Your task to perform on an android device: Go to calendar. Show me events next week Image 0: 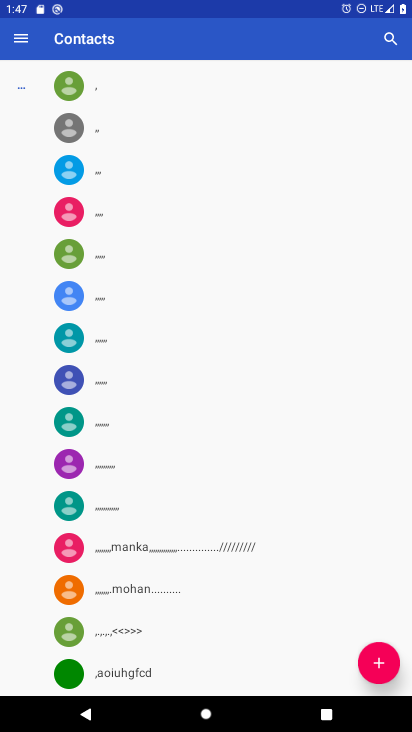
Step 0: press home button
Your task to perform on an android device: Go to calendar. Show me events next week Image 1: 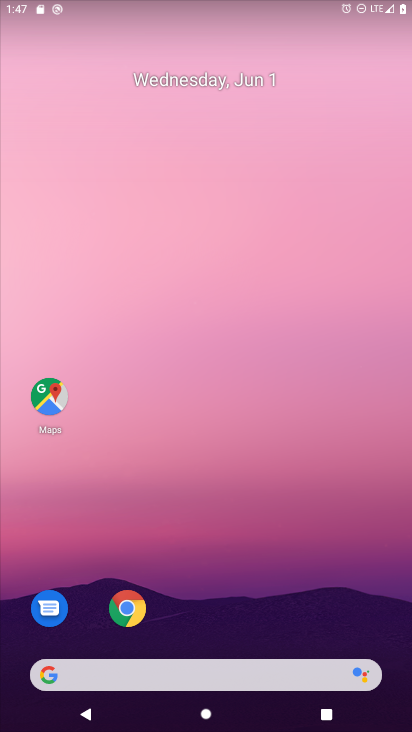
Step 1: drag from (185, 630) to (146, 217)
Your task to perform on an android device: Go to calendar. Show me events next week Image 2: 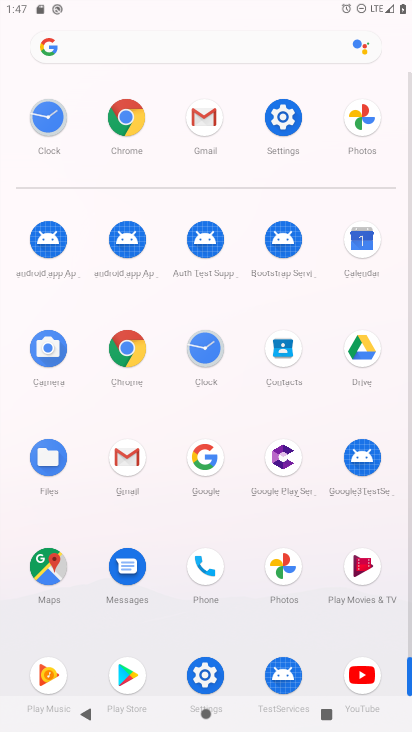
Step 2: click (359, 269)
Your task to perform on an android device: Go to calendar. Show me events next week Image 3: 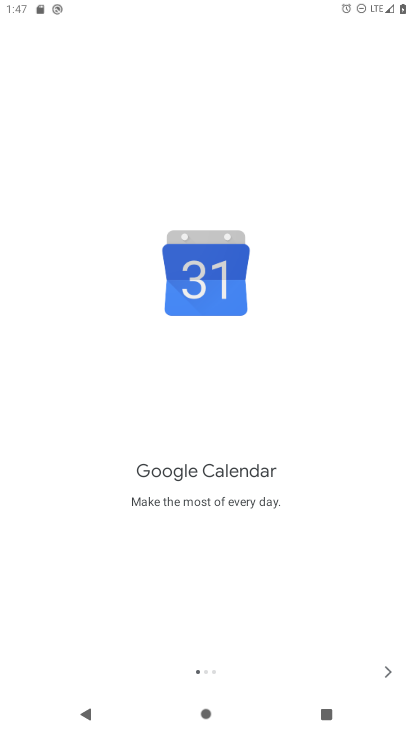
Step 3: click (359, 259)
Your task to perform on an android device: Go to calendar. Show me events next week Image 4: 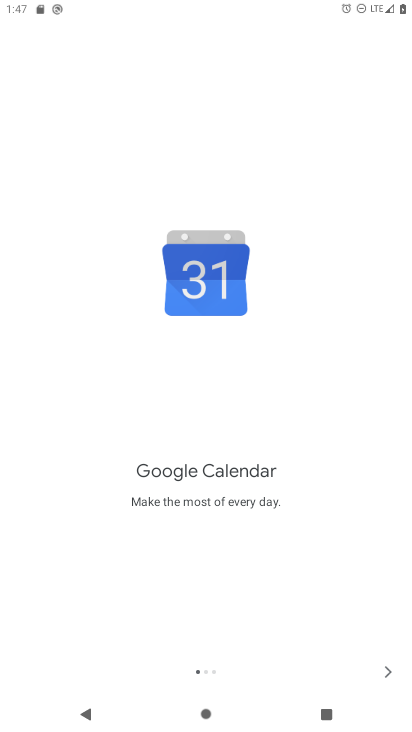
Step 4: click (377, 670)
Your task to perform on an android device: Go to calendar. Show me events next week Image 5: 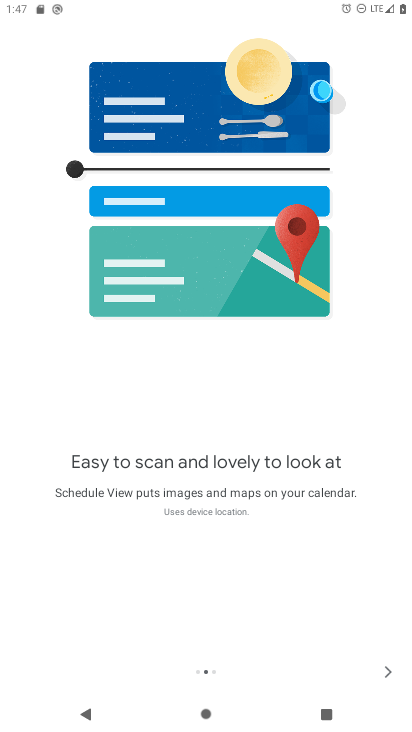
Step 5: click (377, 670)
Your task to perform on an android device: Go to calendar. Show me events next week Image 6: 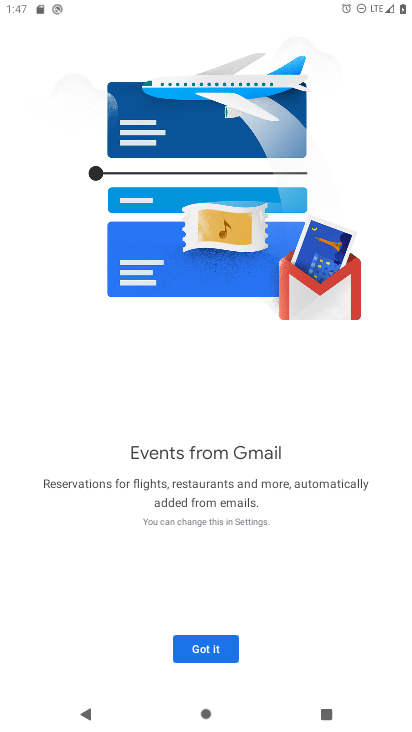
Step 6: click (209, 649)
Your task to perform on an android device: Go to calendar. Show me events next week Image 7: 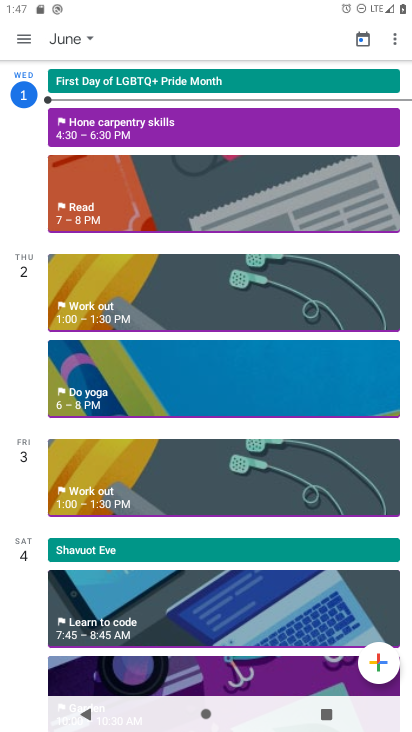
Step 7: click (38, 41)
Your task to perform on an android device: Go to calendar. Show me events next week Image 8: 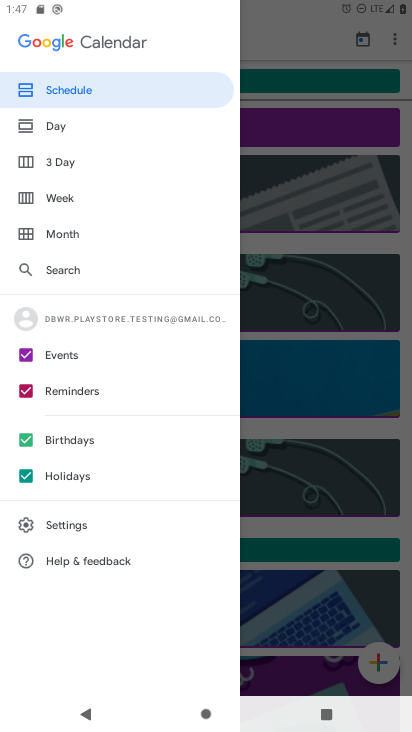
Step 8: click (56, 203)
Your task to perform on an android device: Go to calendar. Show me events next week Image 9: 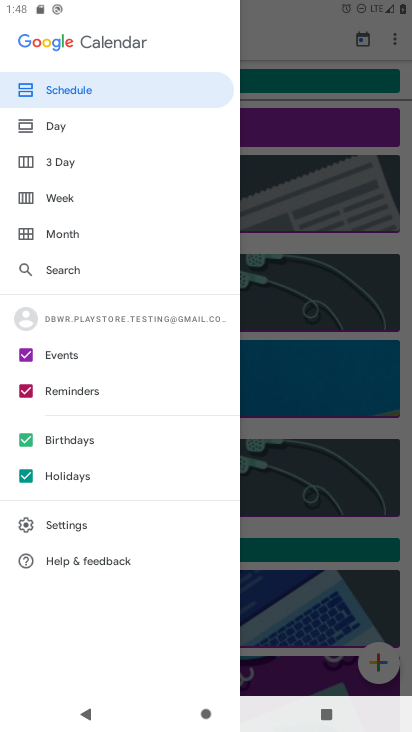
Step 9: click (65, 203)
Your task to perform on an android device: Go to calendar. Show me events next week Image 10: 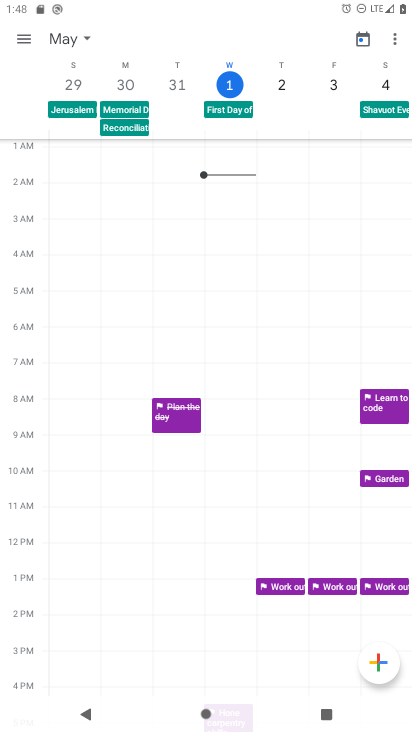
Step 10: click (66, 41)
Your task to perform on an android device: Go to calendar. Show me events next week Image 11: 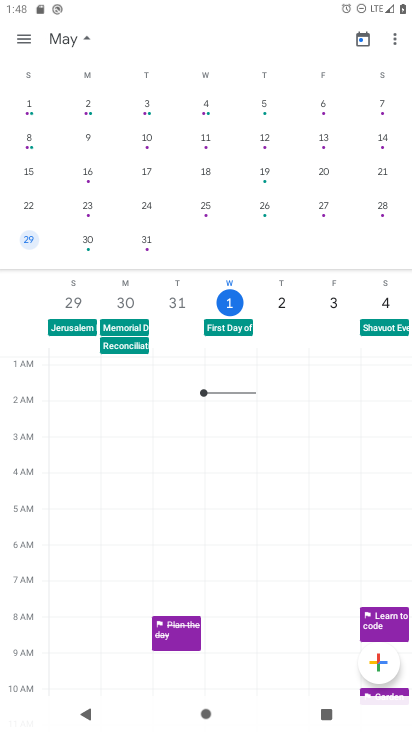
Step 11: drag from (359, 166) to (11, 152)
Your task to perform on an android device: Go to calendar. Show me events next week Image 12: 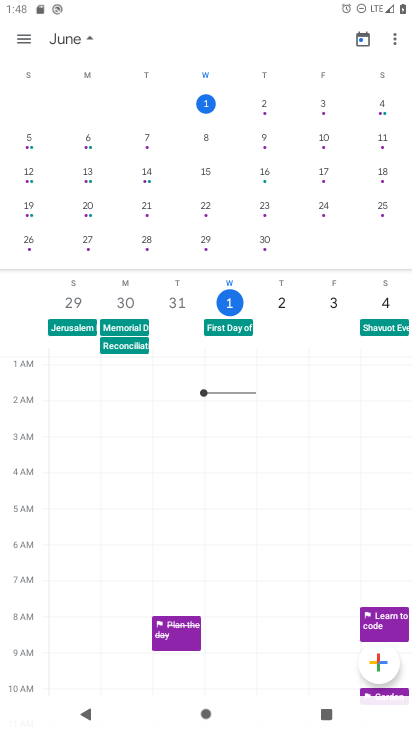
Step 12: click (25, 142)
Your task to perform on an android device: Go to calendar. Show me events next week Image 13: 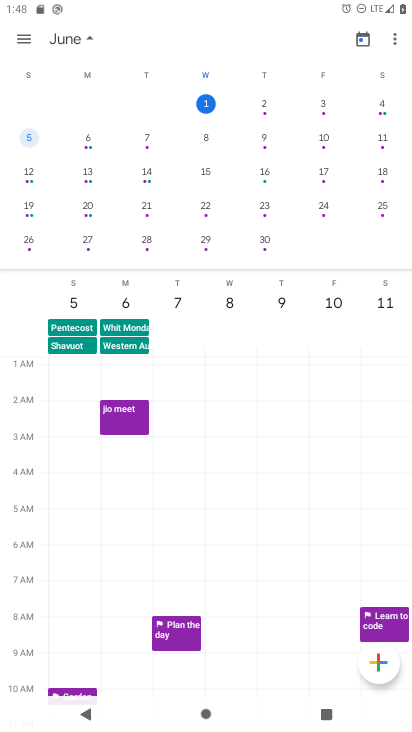
Step 13: task complete